Your task to perform on an android device: open a new tab in the chrome app Image 0: 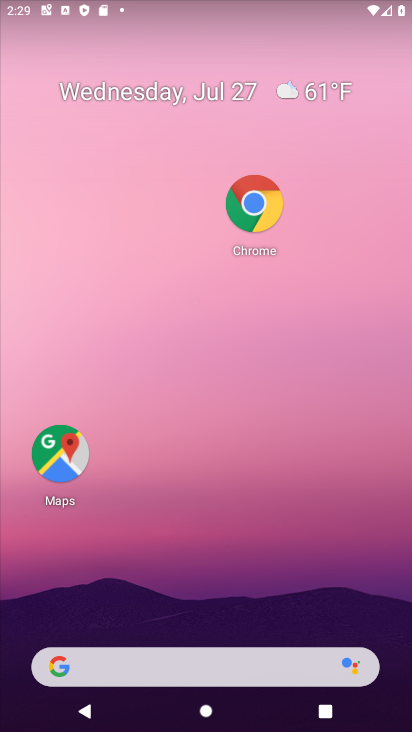
Step 0: click (253, 222)
Your task to perform on an android device: open a new tab in the chrome app Image 1: 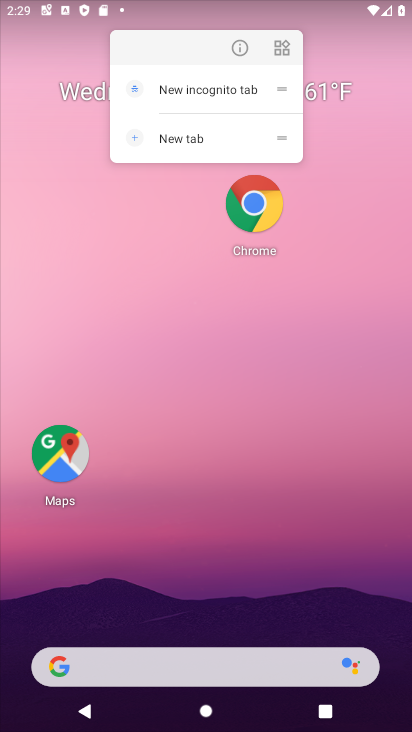
Step 1: click (253, 222)
Your task to perform on an android device: open a new tab in the chrome app Image 2: 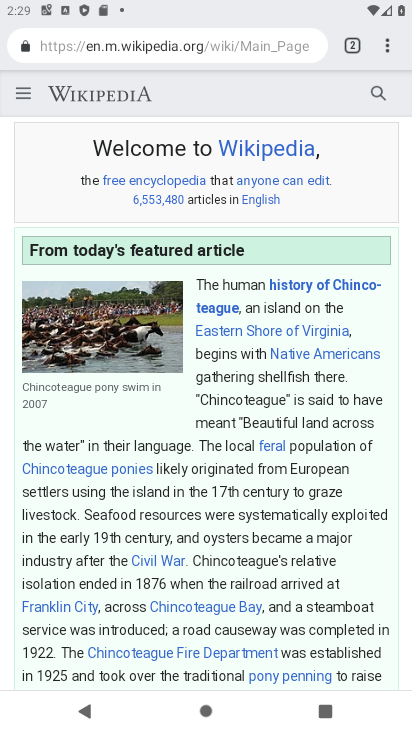
Step 2: click (346, 41)
Your task to perform on an android device: open a new tab in the chrome app Image 3: 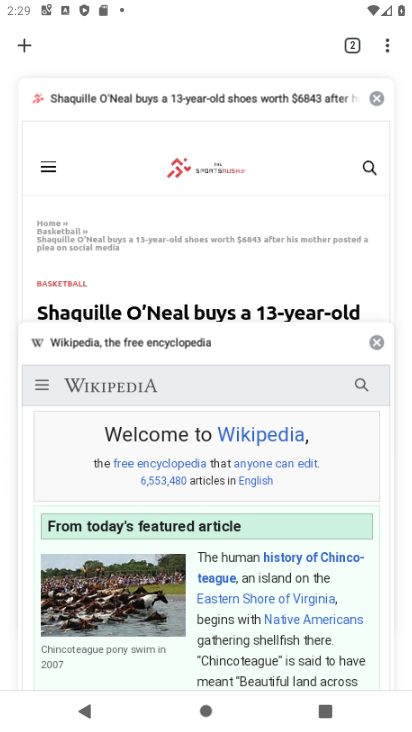
Step 3: click (14, 44)
Your task to perform on an android device: open a new tab in the chrome app Image 4: 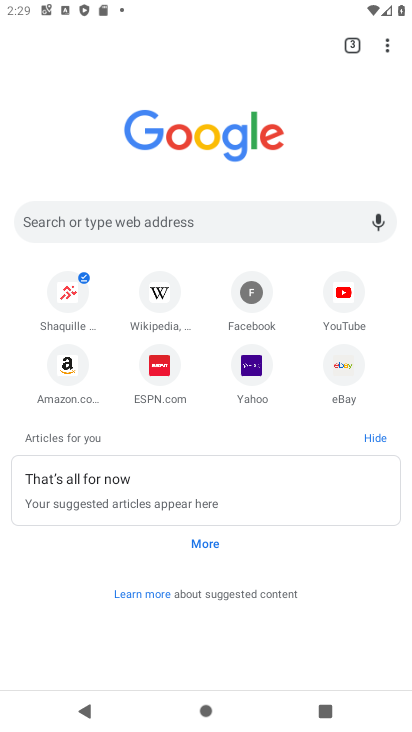
Step 4: task complete